Your task to perform on an android device: create a new album in the google photos Image 0: 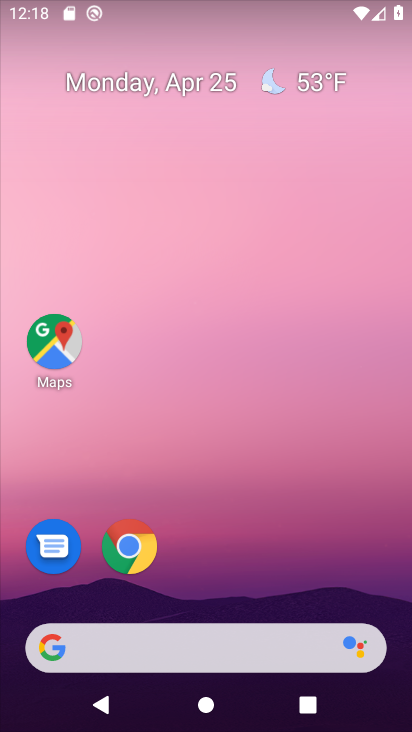
Step 0: drag from (228, 565) to (223, 95)
Your task to perform on an android device: create a new album in the google photos Image 1: 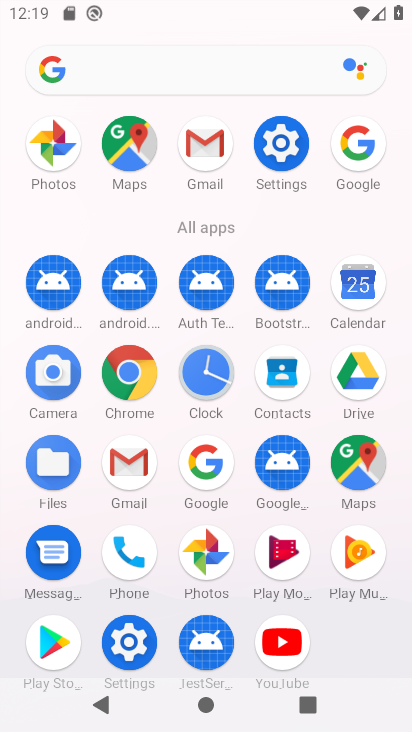
Step 1: click (202, 544)
Your task to perform on an android device: create a new album in the google photos Image 2: 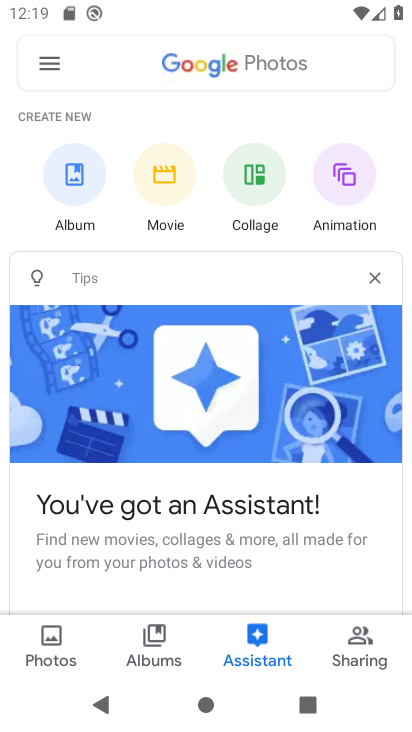
Step 2: click (123, 653)
Your task to perform on an android device: create a new album in the google photos Image 3: 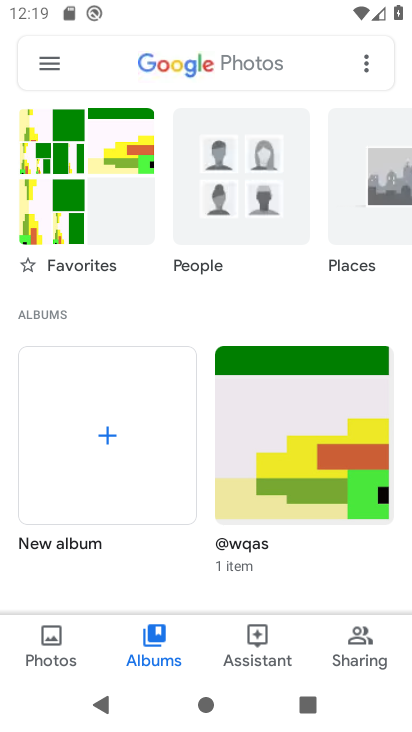
Step 3: click (104, 440)
Your task to perform on an android device: create a new album in the google photos Image 4: 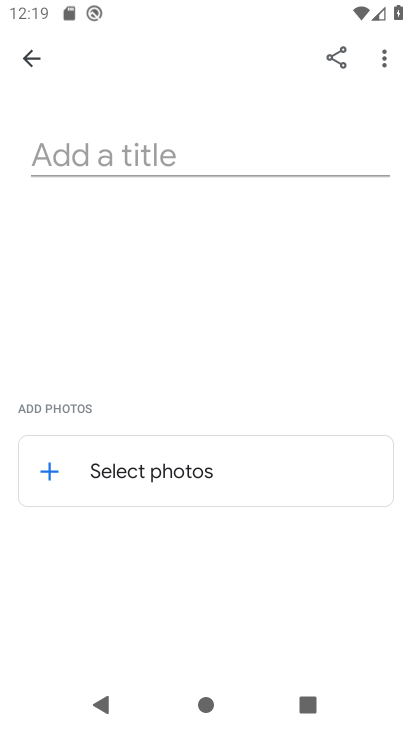
Step 4: click (212, 161)
Your task to perform on an android device: create a new album in the google photos Image 5: 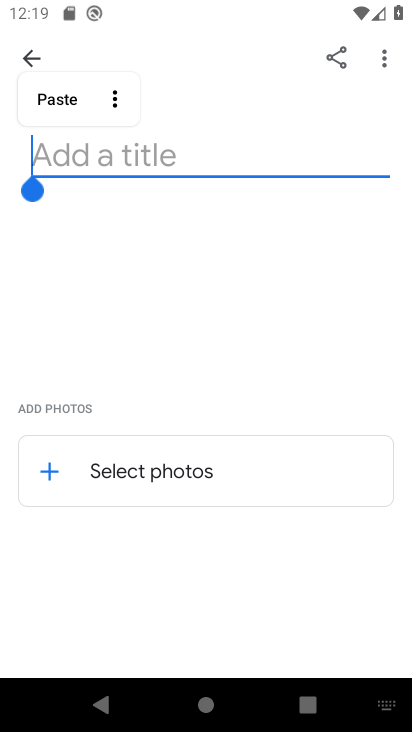
Step 5: click (212, 161)
Your task to perform on an android device: create a new album in the google photos Image 6: 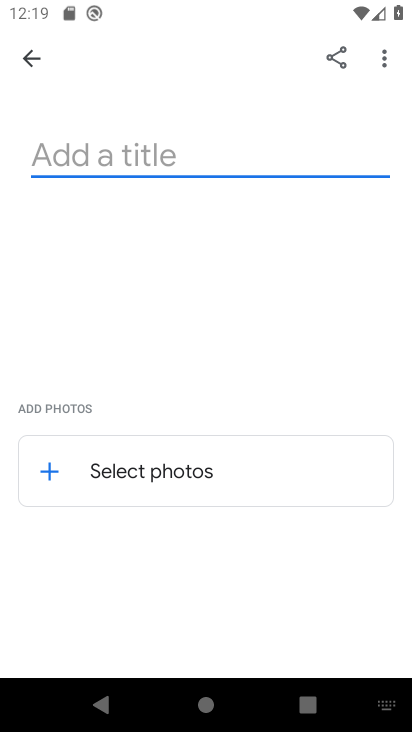
Step 6: type "love"
Your task to perform on an android device: create a new album in the google photos Image 7: 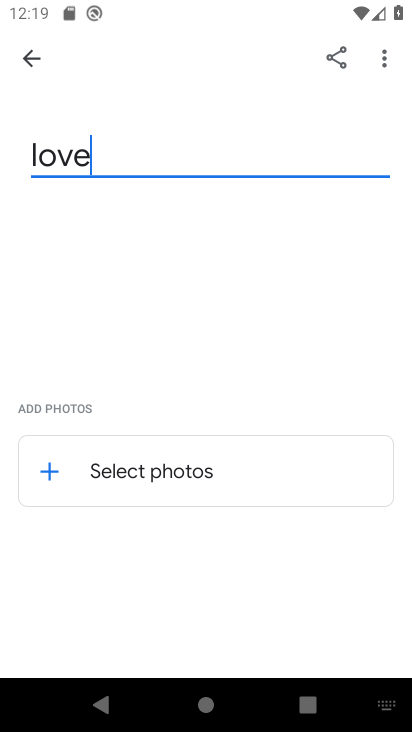
Step 7: click (54, 466)
Your task to perform on an android device: create a new album in the google photos Image 8: 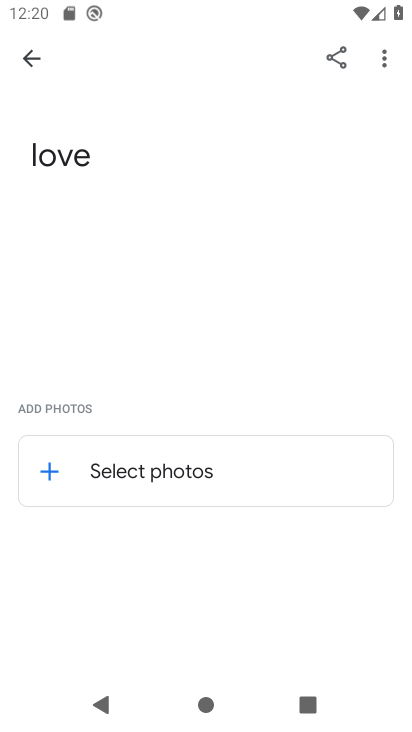
Step 8: click (62, 470)
Your task to perform on an android device: create a new album in the google photos Image 9: 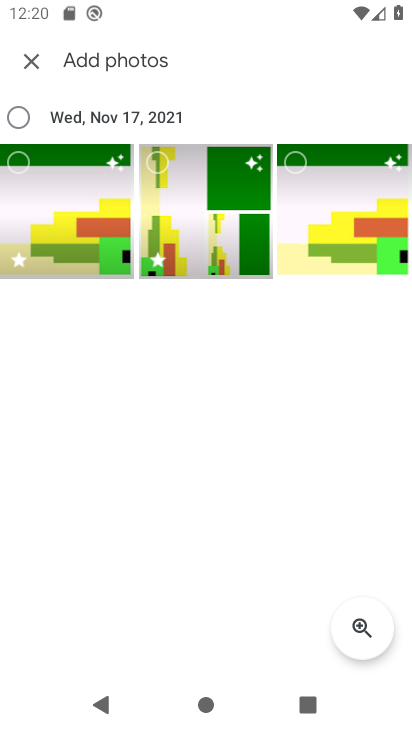
Step 9: click (16, 117)
Your task to perform on an android device: create a new album in the google photos Image 10: 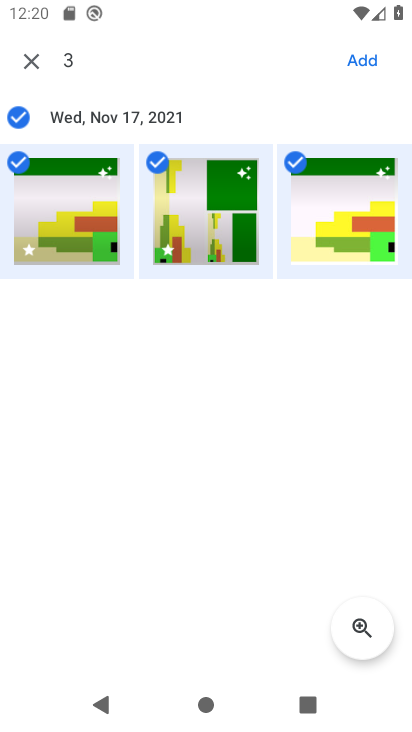
Step 10: click (377, 53)
Your task to perform on an android device: create a new album in the google photos Image 11: 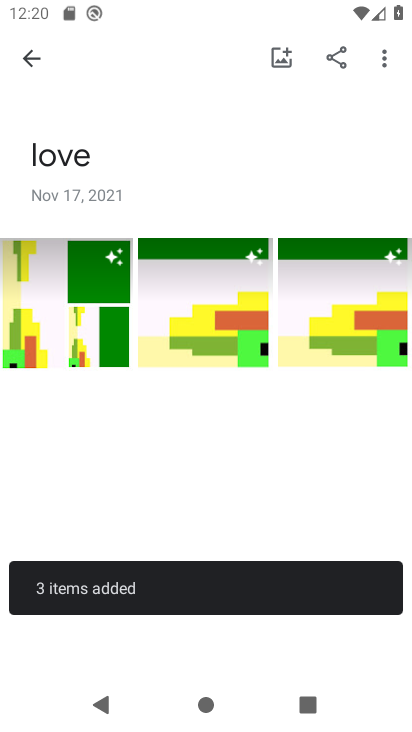
Step 11: task complete